Your task to perform on an android device: Open Wikipedia Image 0: 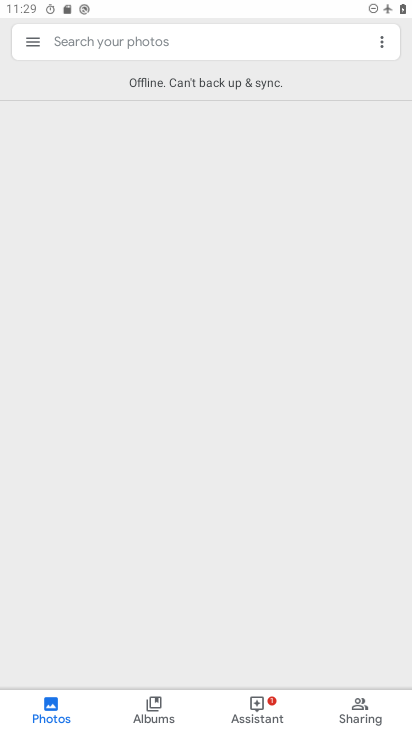
Step 0: press home button
Your task to perform on an android device: Open Wikipedia Image 1: 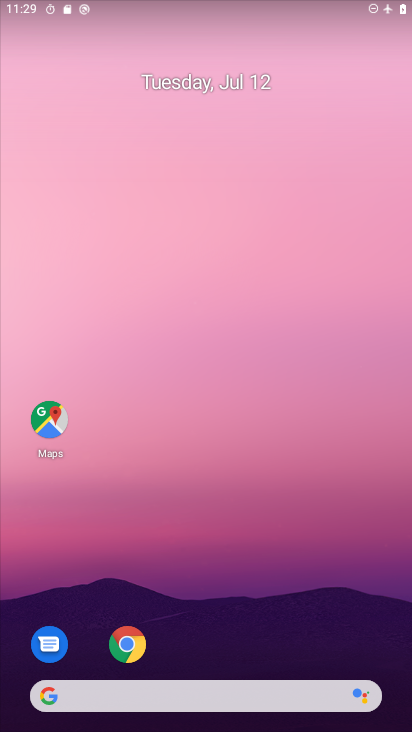
Step 1: click (138, 648)
Your task to perform on an android device: Open Wikipedia Image 2: 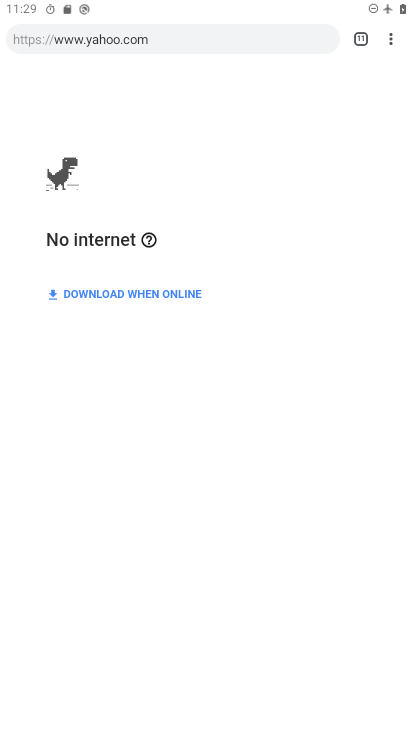
Step 2: task complete